Your task to perform on an android device: Open battery settings Image 0: 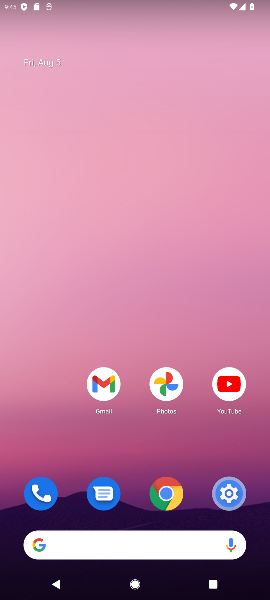
Step 0: drag from (144, 473) to (141, 11)
Your task to perform on an android device: Open battery settings Image 1: 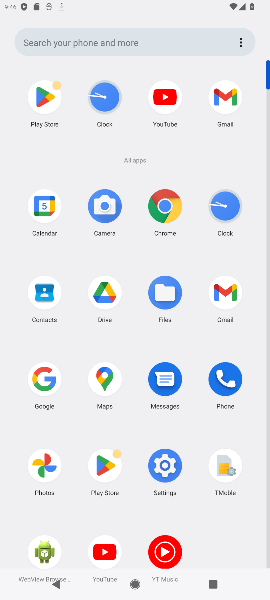
Step 1: click (163, 465)
Your task to perform on an android device: Open battery settings Image 2: 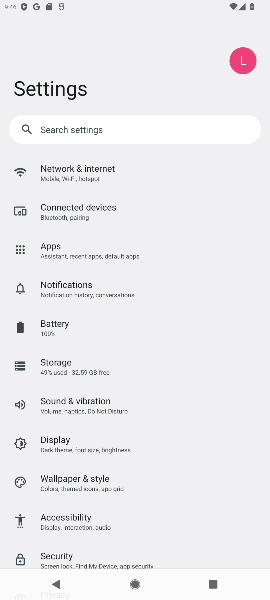
Step 2: click (79, 327)
Your task to perform on an android device: Open battery settings Image 3: 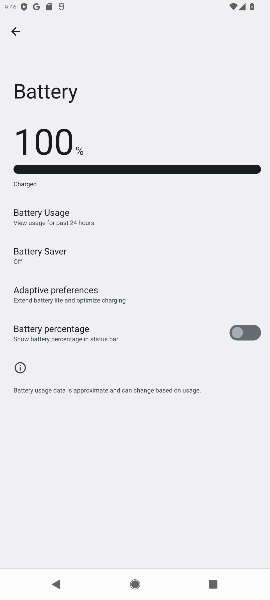
Step 3: task complete